Your task to perform on an android device: Open calendar and show me the second week of next month Image 0: 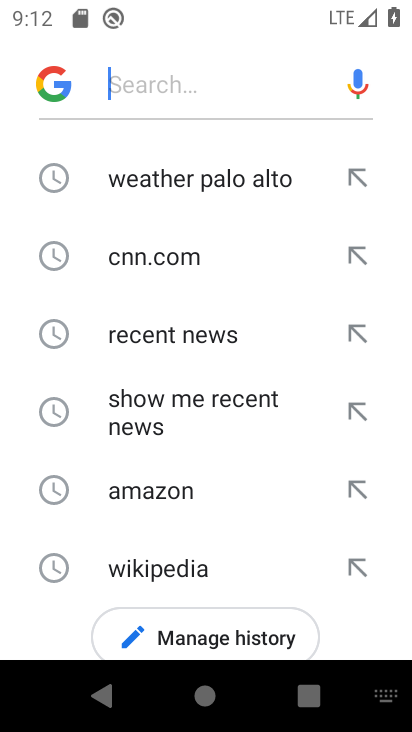
Step 0: press home button
Your task to perform on an android device: Open calendar and show me the second week of next month Image 1: 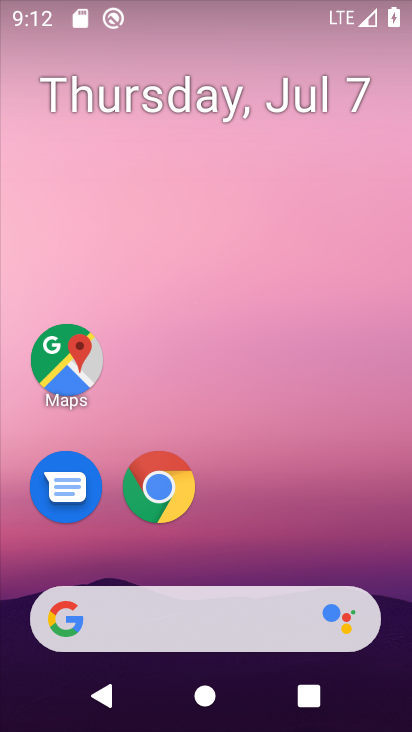
Step 1: drag from (360, 512) to (331, 67)
Your task to perform on an android device: Open calendar and show me the second week of next month Image 2: 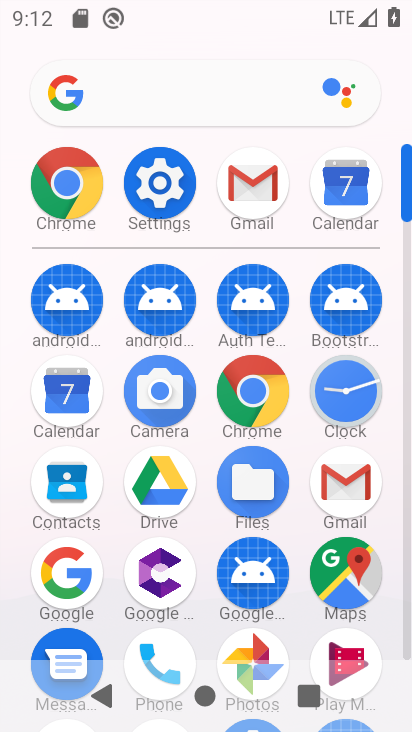
Step 2: click (347, 198)
Your task to perform on an android device: Open calendar and show me the second week of next month Image 3: 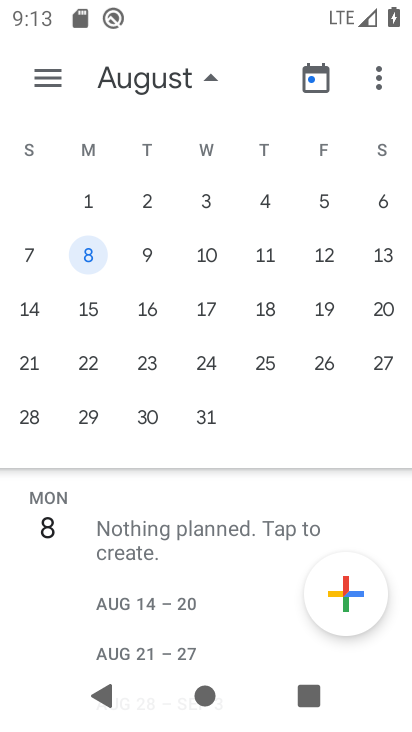
Step 3: task complete